Your task to perform on an android device: Open the stopwatch Image 0: 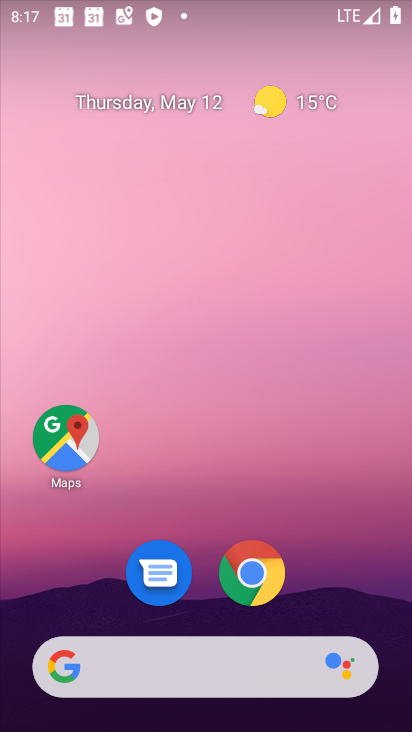
Step 0: drag from (350, 579) to (193, 141)
Your task to perform on an android device: Open the stopwatch Image 1: 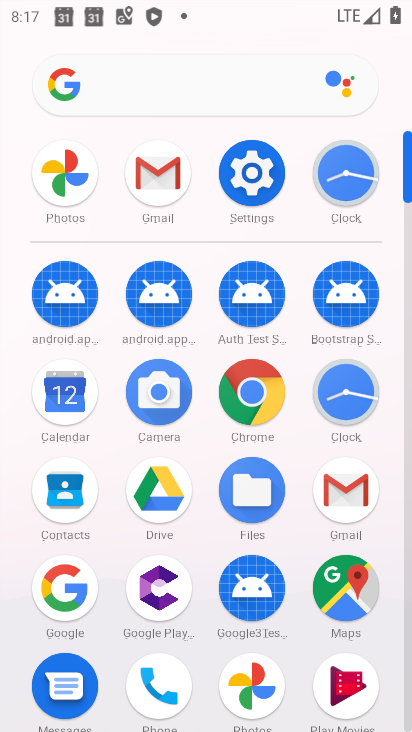
Step 1: click (349, 395)
Your task to perform on an android device: Open the stopwatch Image 2: 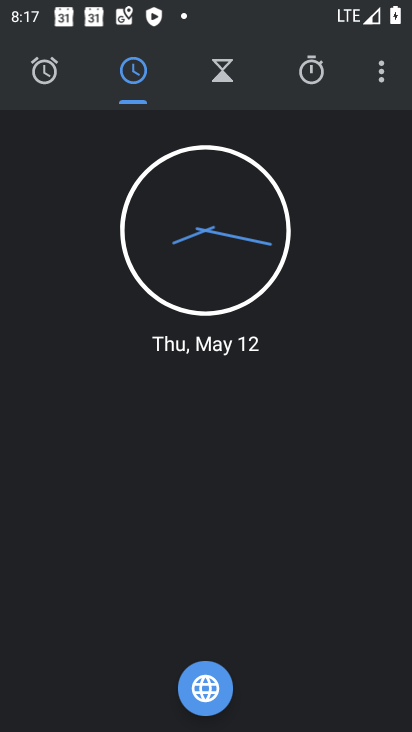
Step 2: click (312, 72)
Your task to perform on an android device: Open the stopwatch Image 3: 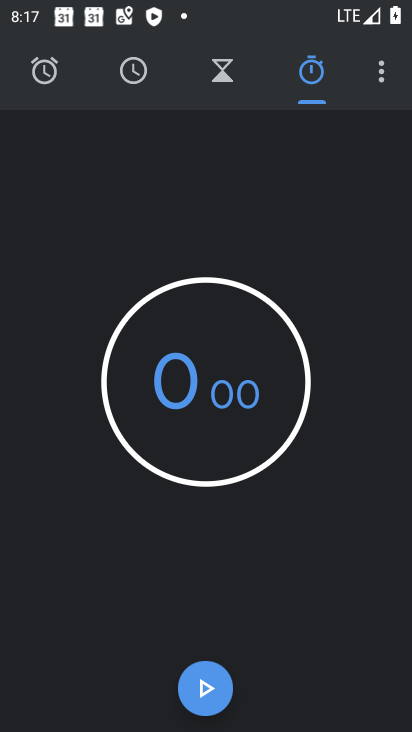
Step 3: task complete